Your task to perform on an android device: Go to Reddit.com Image 0: 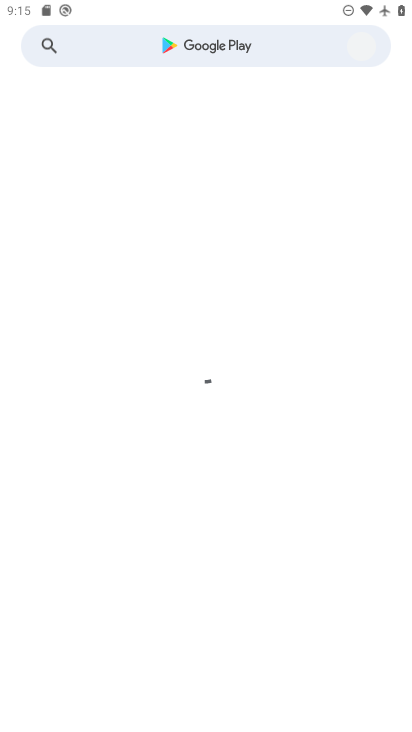
Step 0: press home button
Your task to perform on an android device: Go to Reddit.com Image 1: 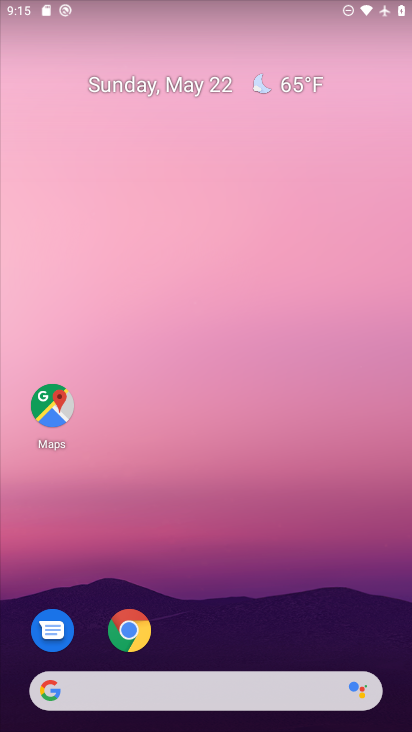
Step 1: click (124, 631)
Your task to perform on an android device: Go to Reddit.com Image 2: 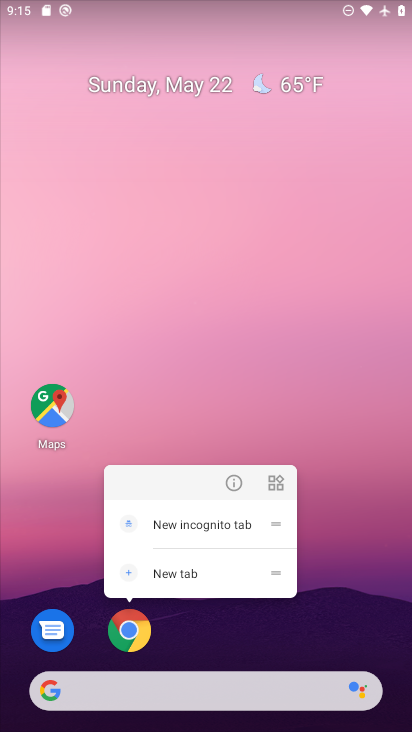
Step 2: click (135, 638)
Your task to perform on an android device: Go to Reddit.com Image 3: 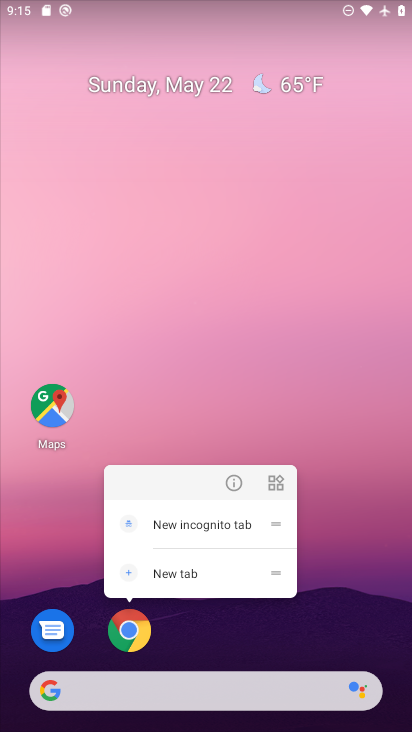
Step 3: click (122, 639)
Your task to perform on an android device: Go to Reddit.com Image 4: 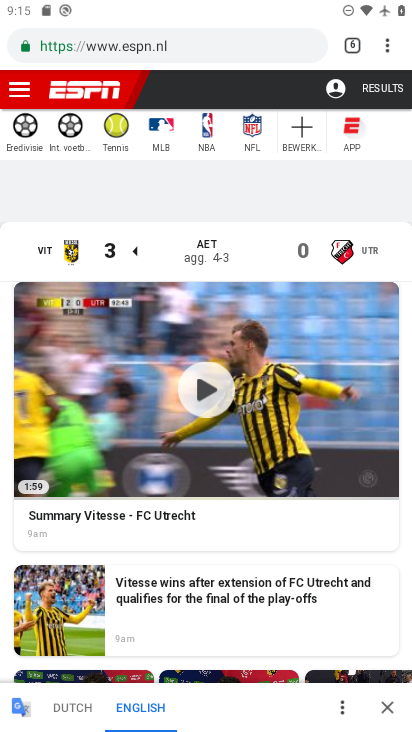
Step 4: drag from (381, 50) to (276, 91)
Your task to perform on an android device: Go to Reddit.com Image 5: 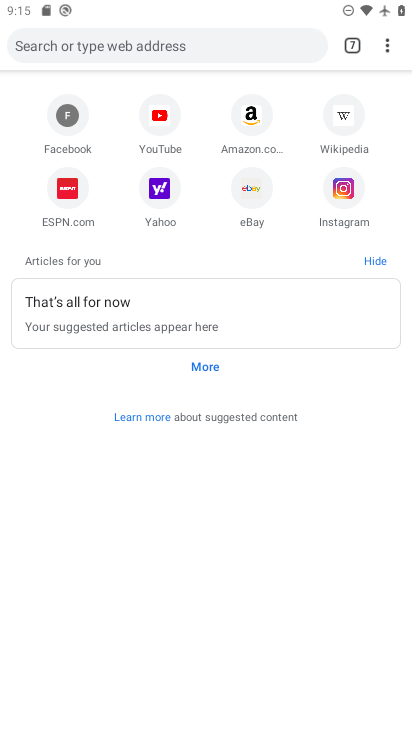
Step 5: click (109, 45)
Your task to perform on an android device: Go to Reddit.com Image 6: 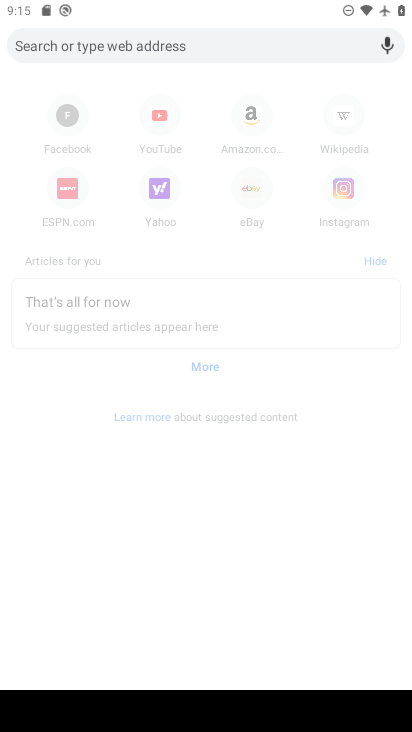
Step 6: type "reddit.com"
Your task to perform on an android device: Go to Reddit.com Image 7: 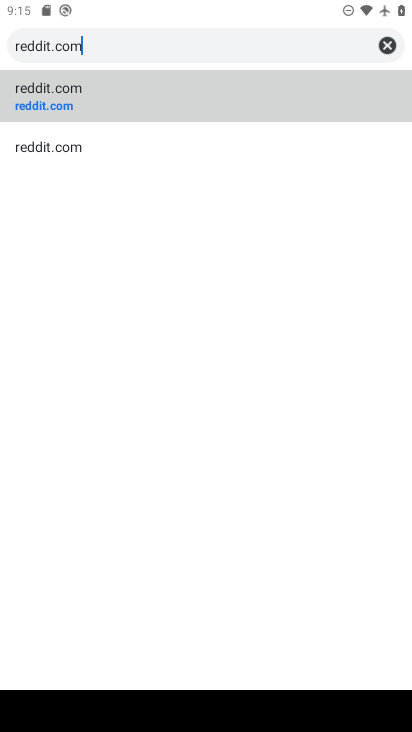
Step 7: click (45, 111)
Your task to perform on an android device: Go to Reddit.com Image 8: 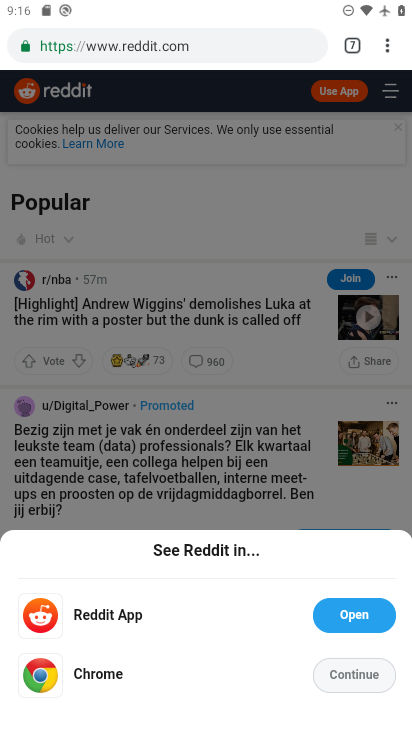
Step 8: task complete